Your task to perform on an android device: Empty the shopping cart on newegg. Add "razer deathadder" to the cart on newegg Image 0: 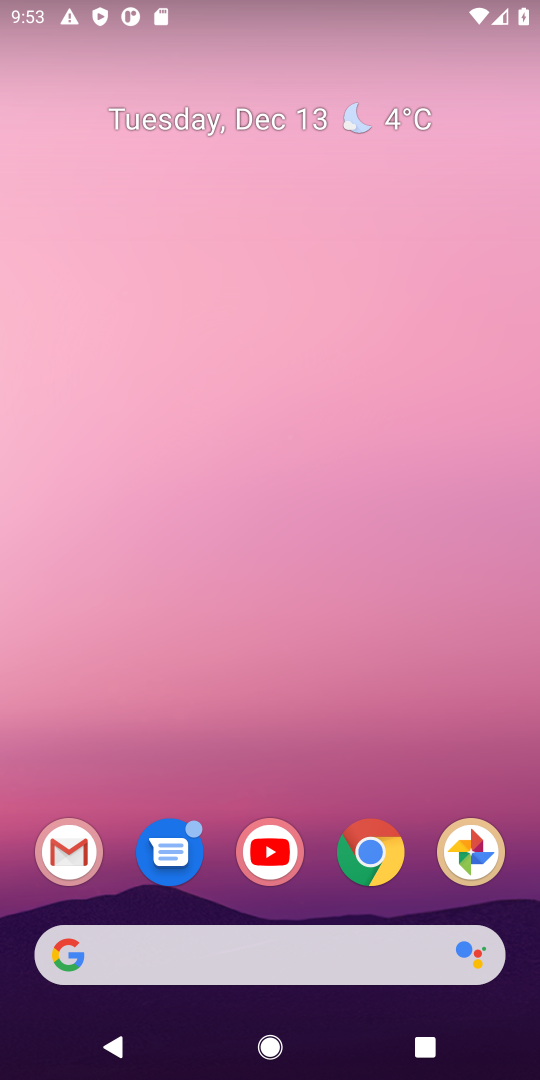
Step 0: click (140, 951)
Your task to perform on an android device: Empty the shopping cart on newegg. Add "razer deathadder" to the cart on newegg Image 1: 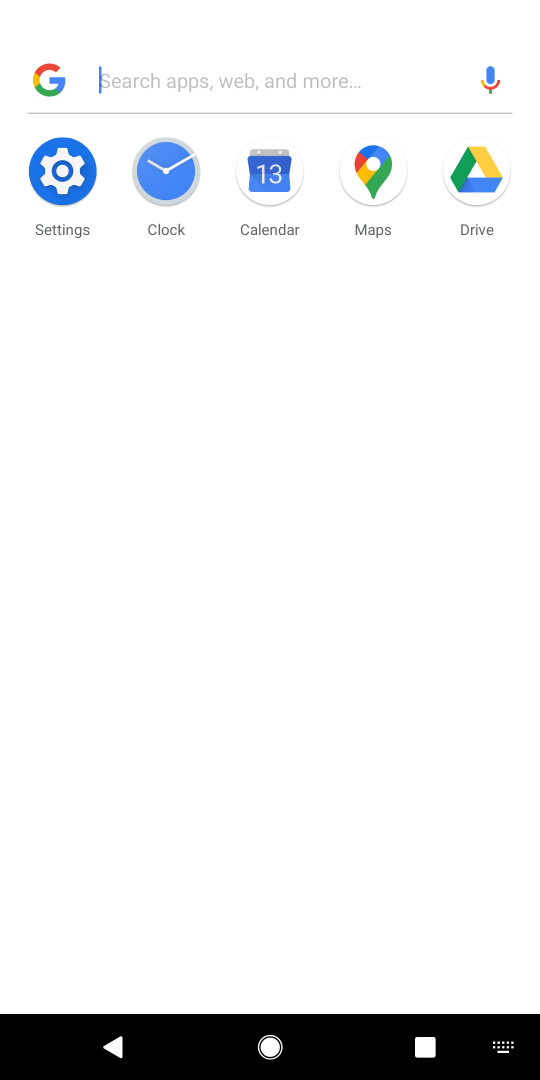
Step 1: press enter
Your task to perform on an android device: Empty the shopping cart on newegg. Add "razer deathadder" to the cart on newegg Image 2: 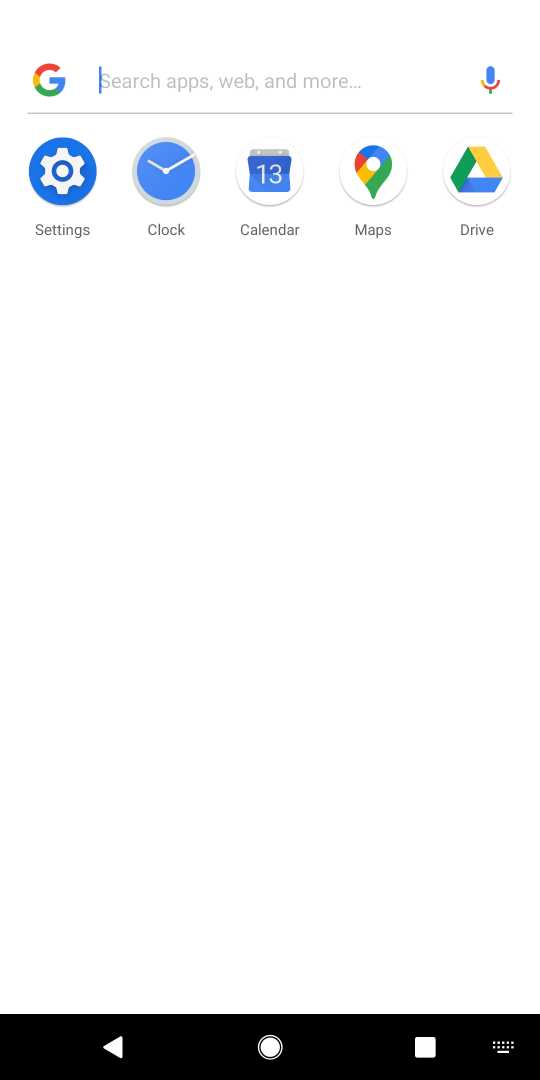
Step 2: type "newegg"
Your task to perform on an android device: Empty the shopping cart on newegg. Add "razer deathadder" to the cart on newegg Image 3: 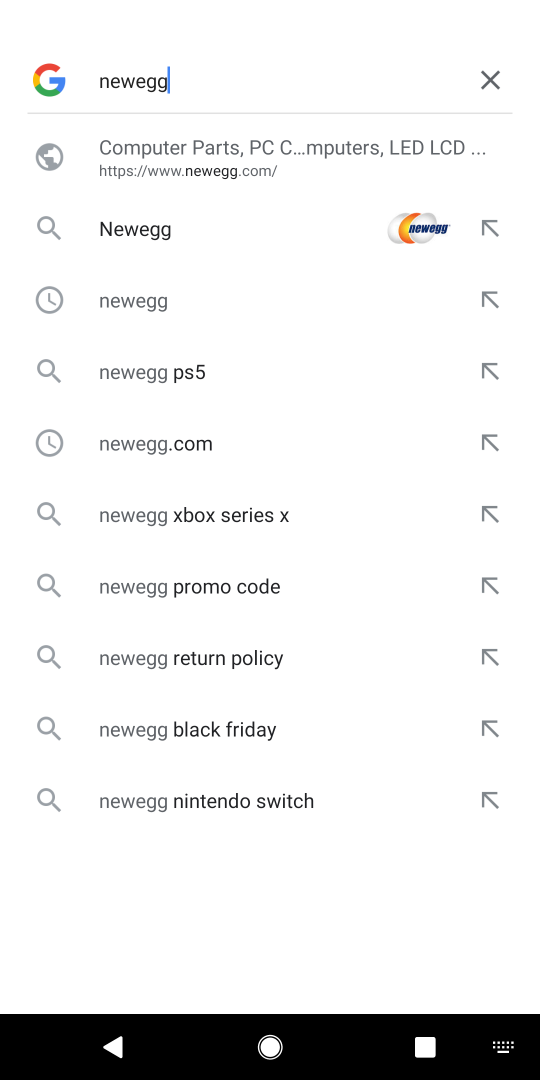
Step 3: press enter
Your task to perform on an android device: Empty the shopping cart on newegg. Add "razer deathadder" to the cart on newegg Image 4: 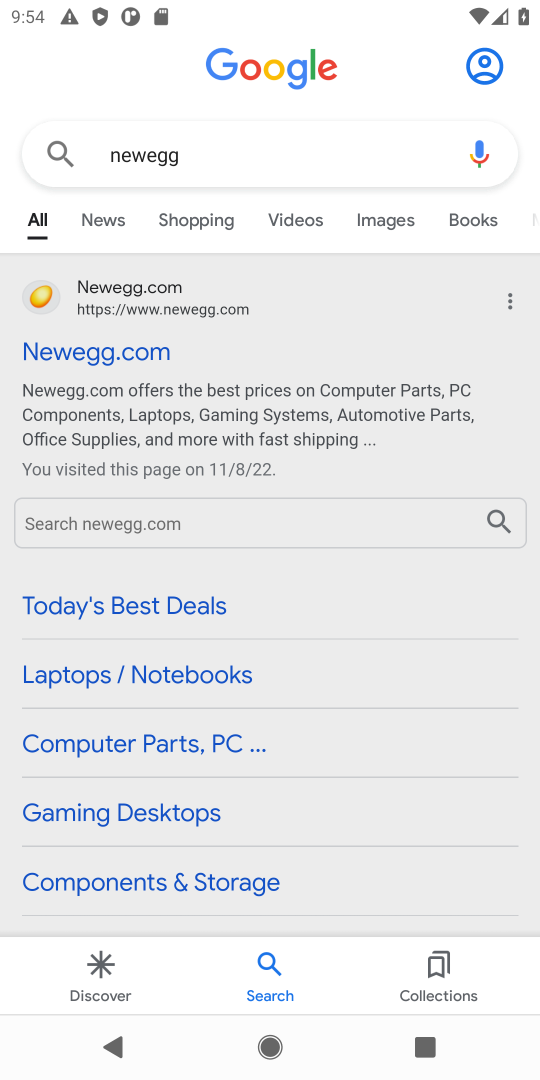
Step 4: click (83, 345)
Your task to perform on an android device: Empty the shopping cart on newegg. Add "razer deathadder" to the cart on newegg Image 5: 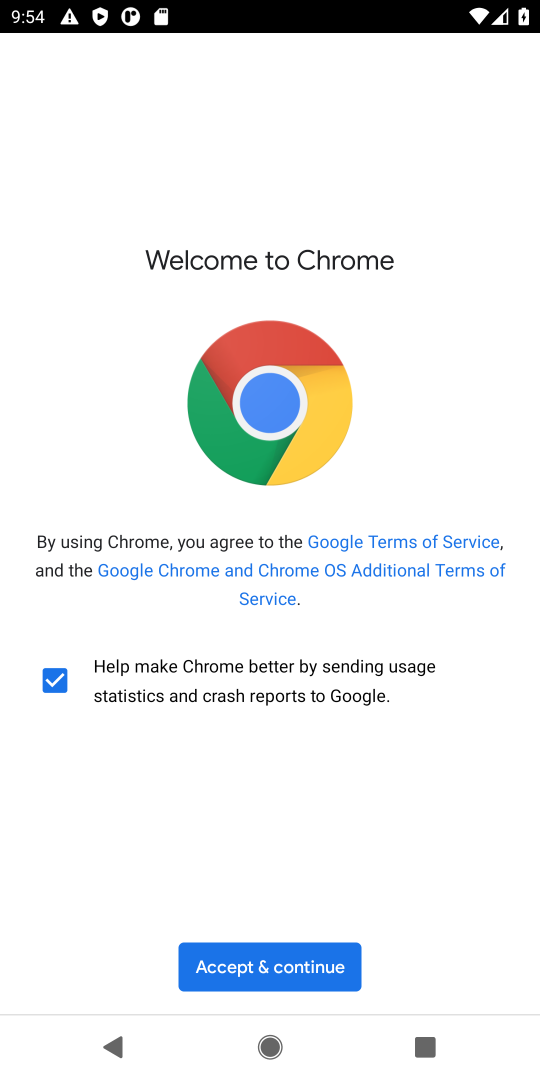
Step 5: click (275, 968)
Your task to perform on an android device: Empty the shopping cart on newegg. Add "razer deathadder" to the cart on newegg Image 6: 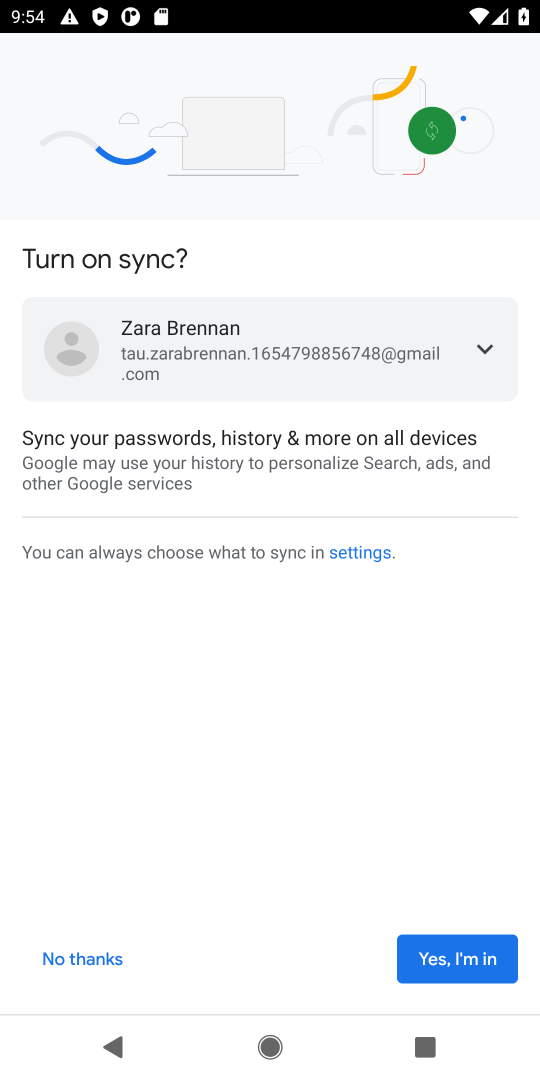
Step 6: click (440, 962)
Your task to perform on an android device: Empty the shopping cart on newegg. Add "razer deathadder" to the cart on newegg Image 7: 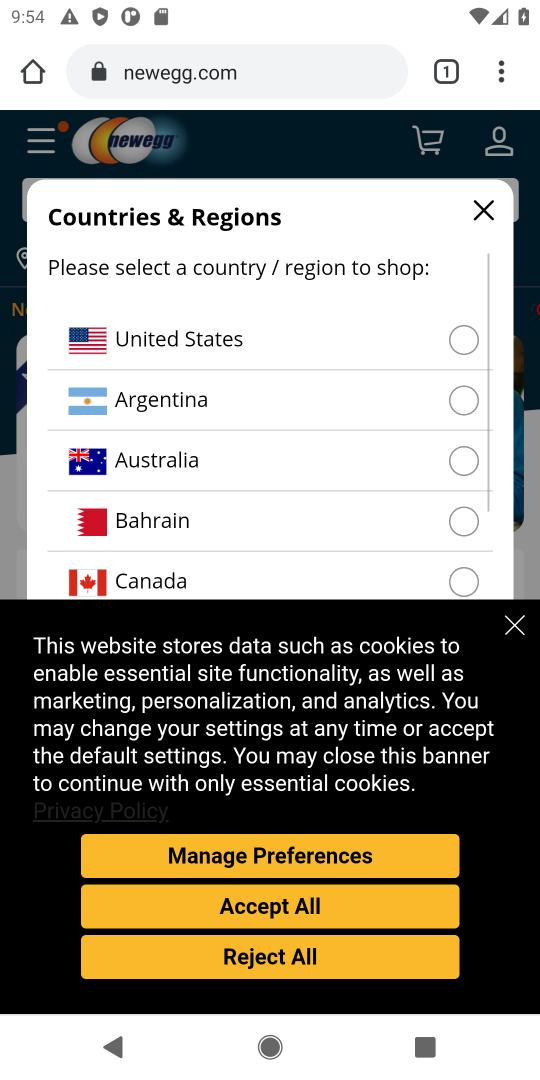
Step 7: click (516, 635)
Your task to perform on an android device: Empty the shopping cart on newegg. Add "razer deathadder" to the cart on newegg Image 8: 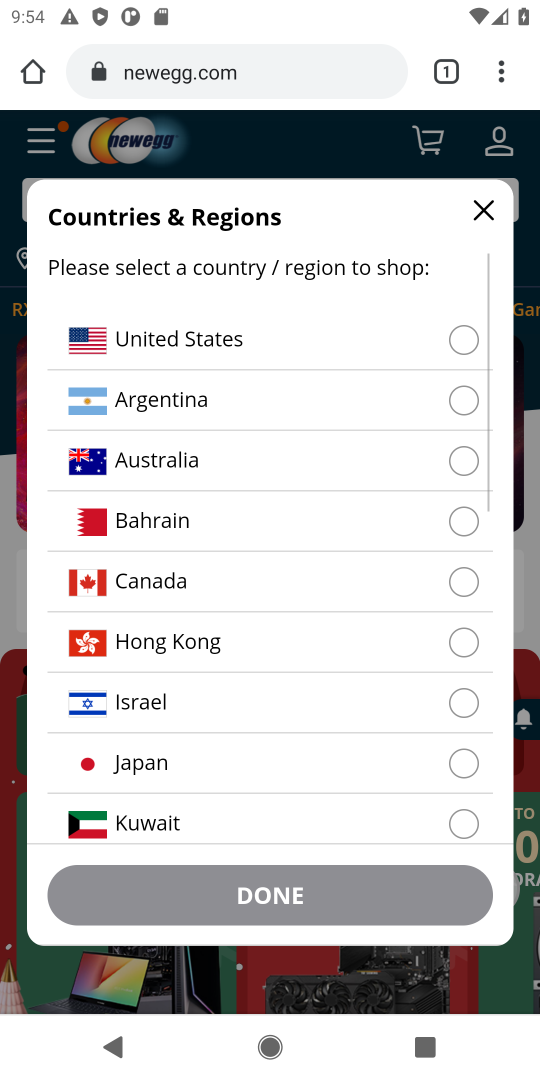
Step 8: click (477, 210)
Your task to perform on an android device: Empty the shopping cart on newegg. Add "razer deathadder" to the cart on newegg Image 9: 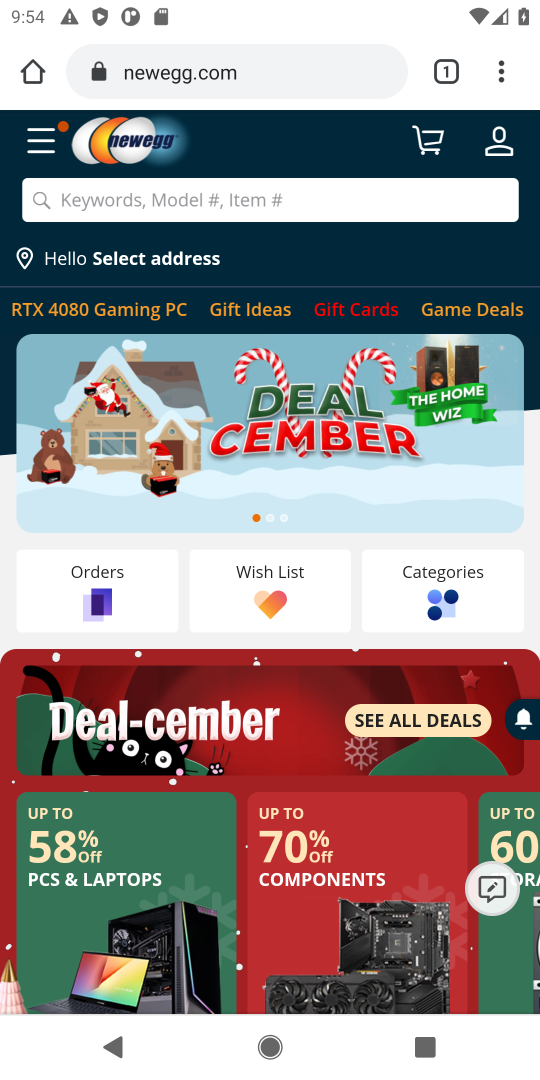
Step 9: click (153, 198)
Your task to perform on an android device: Empty the shopping cart on newegg. Add "razer deathadder" to the cart on newegg Image 10: 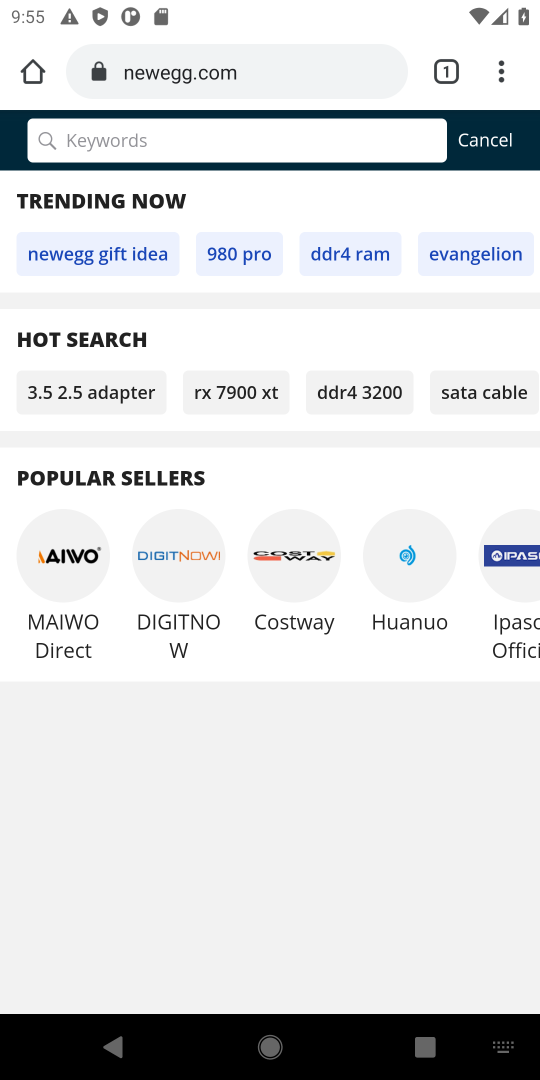
Step 10: type "razer deathadder"
Your task to perform on an android device: Empty the shopping cart on newegg. Add "razer deathadder" to the cart on newegg Image 11: 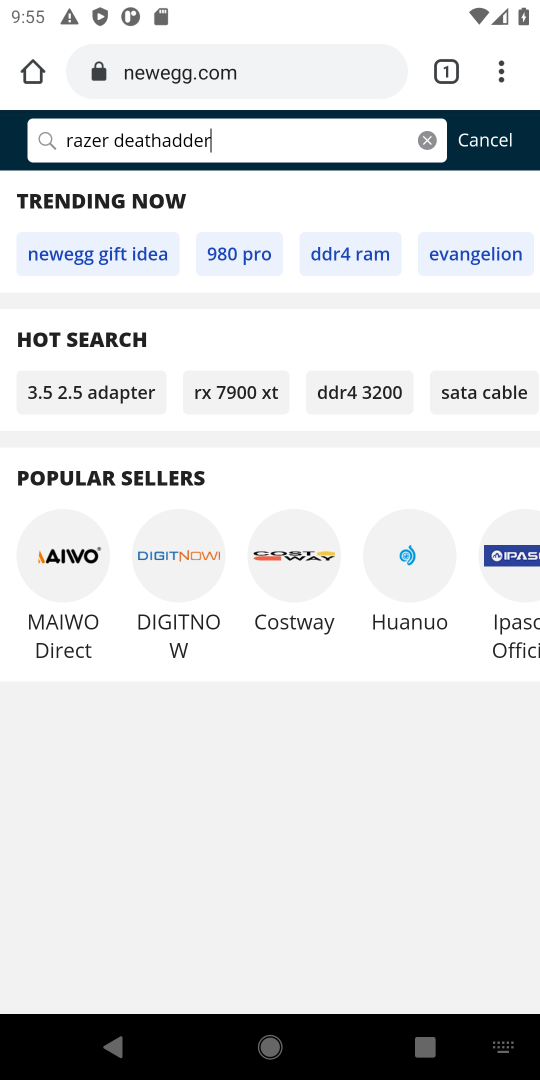
Step 11: press enter
Your task to perform on an android device: Empty the shopping cart on newegg. Add "razer deathadder" to the cart on newegg Image 12: 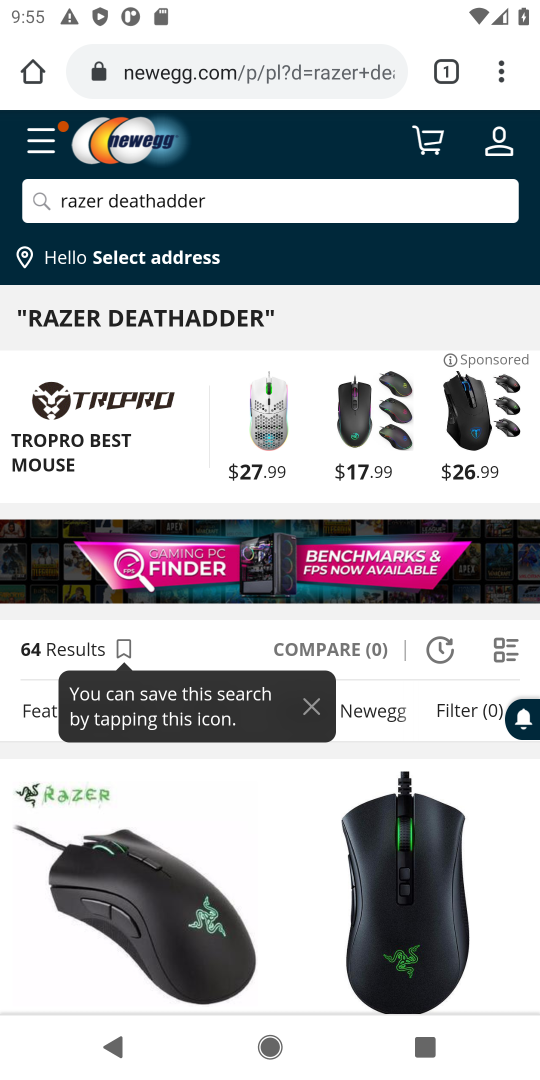
Step 12: drag from (277, 988) to (256, 592)
Your task to perform on an android device: Empty the shopping cart on newegg. Add "razer deathadder" to the cart on newegg Image 13: 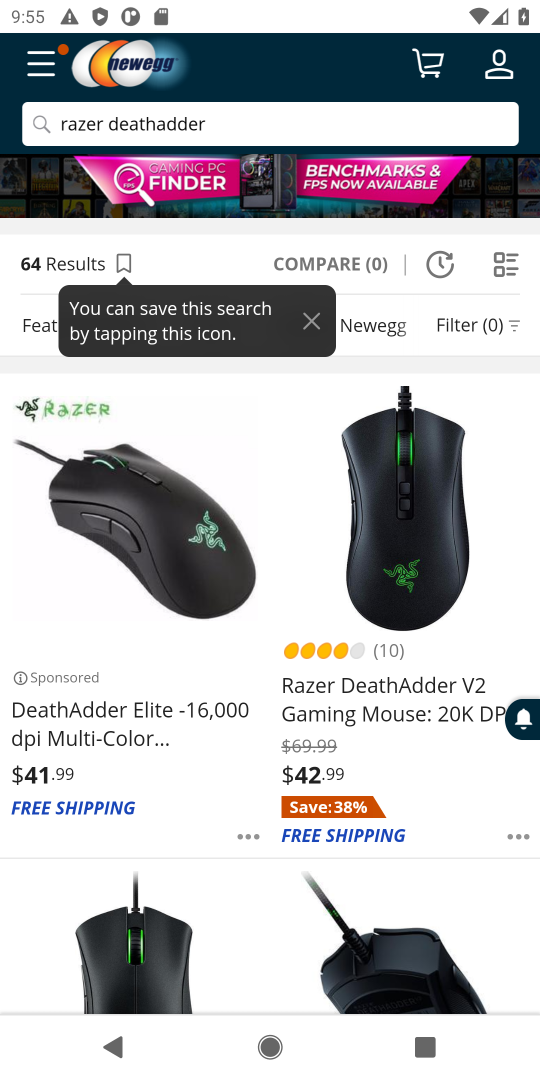
Step 13: click (370, 707)
Your task to perform on an android device: Empty the shopping cart on newegg. Add "razer deathadder" to the cart on newegg Image 14: 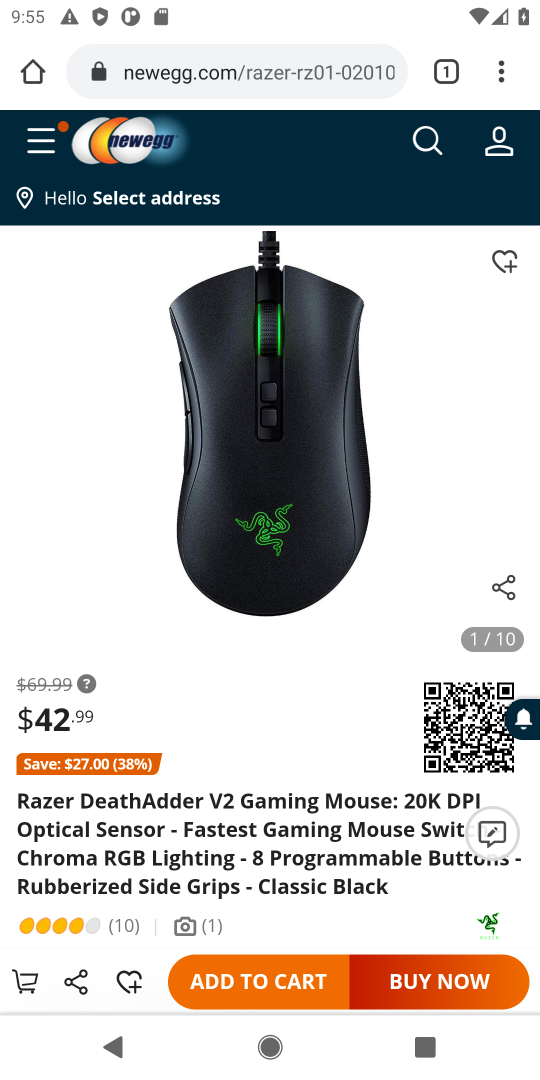
Step 14: click (234, 987)
Your task to perform on an android device: Empty the shopping cart on newegg. Add "razer deathadder" to the cart on newegg Image 15: 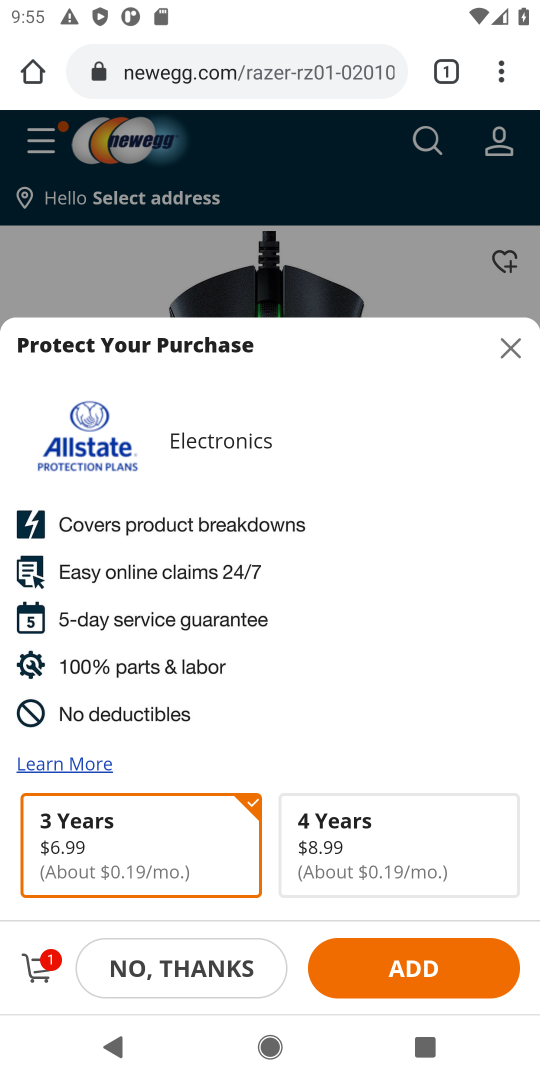
Step 15: task complete